Your task to perform on an android device: Go to internet settings Image 0: 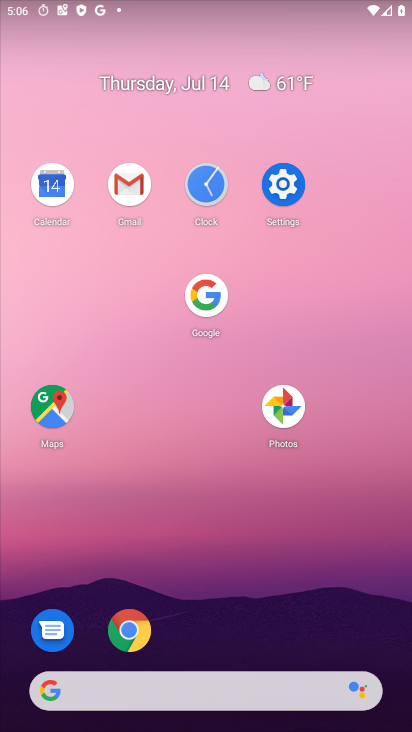
Step 0: click (292, 179)
Your task to perform on an android device: Go to internet settings Image 1: 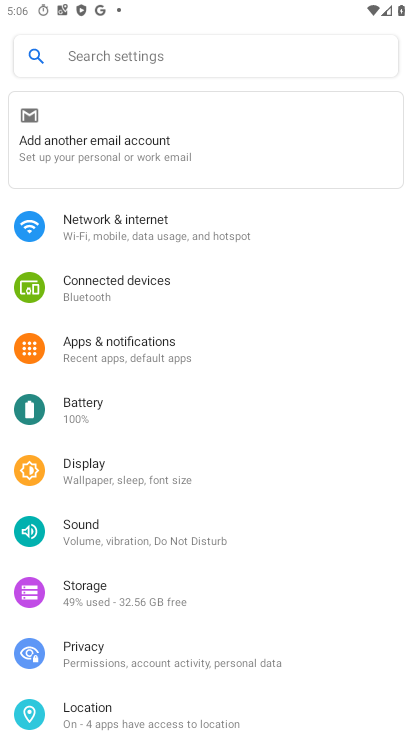
Step 1: click (296, 238)
Your task to perform on an android device: Go to internet settings Image 2: 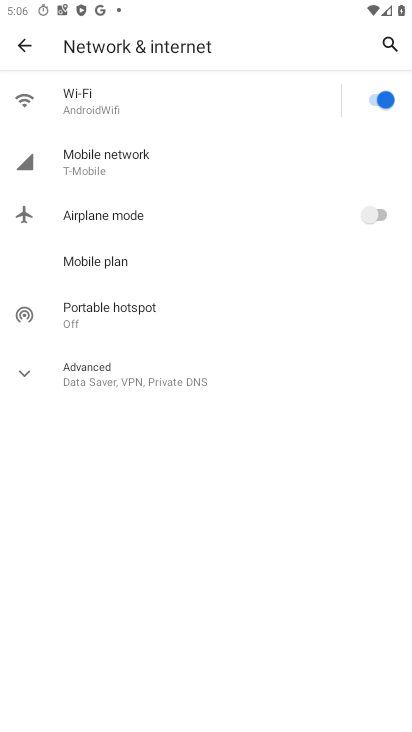
Step 2: task complete